Your task to perform on an android device: Search for vegetarian restaurants on Maps Image 0: 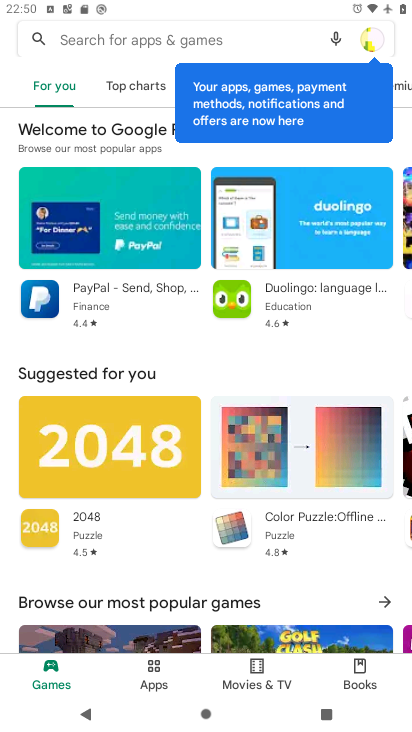
Step 0: press home button
Your task to perform on an android device: Search for vegetarian restaurants on Maps Image 1: 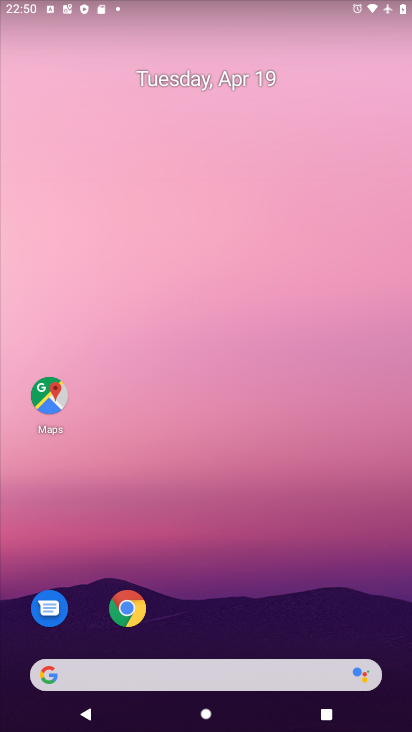
Step 1: click (367, 630)
Your task to perform on an android device: Search for vegetarian restaurants on Maps Image 2: 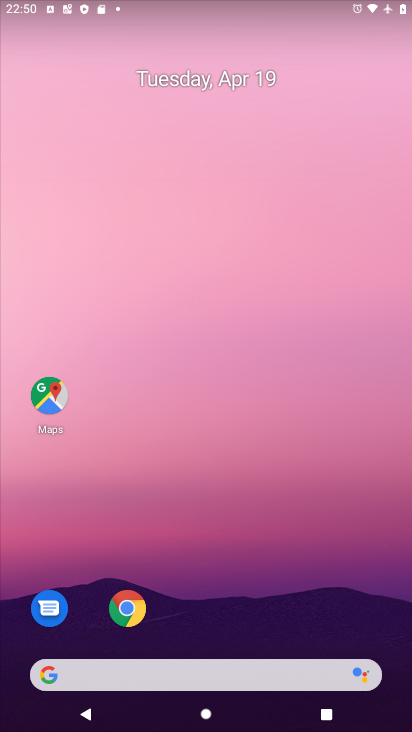
Step 2: click (47, 398)
Your task to perform on an android device: Search for vegetarian restaurants on Maps Image 3: 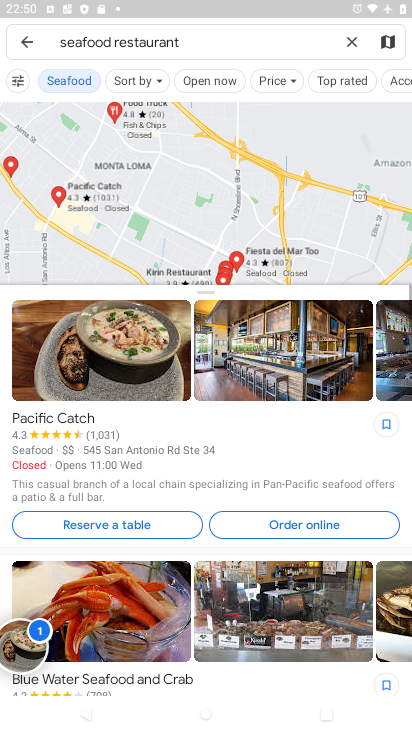
Step 3: click (349, 36)
Your task to perform on an android device: Search for vegetarian restaurants on Maps Image 4: 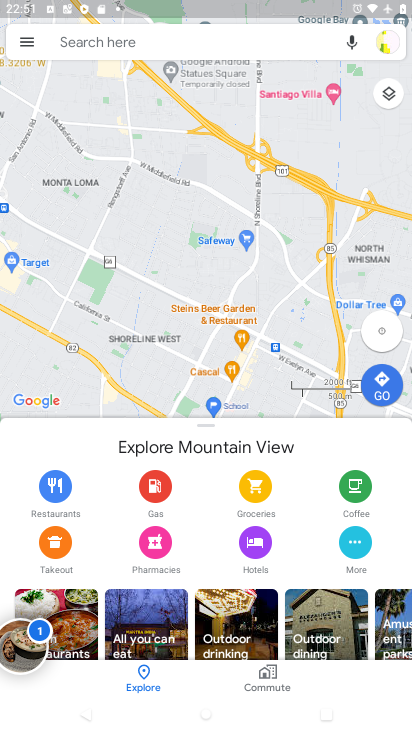
Step 4: click (148, 41)
Your task to perform on an android device: Search for vegetarian restaurants on Maps Image 5: 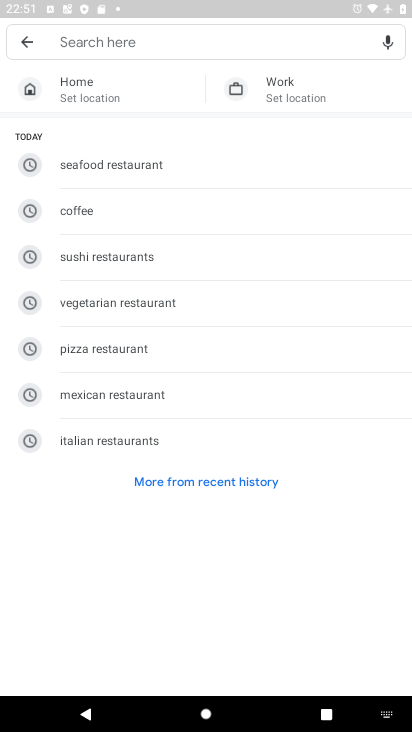
Step 5: type "vegetarian restaurants"
Your task to perform on an android device: Search for vegetarian restaurants on Maps Image 6: 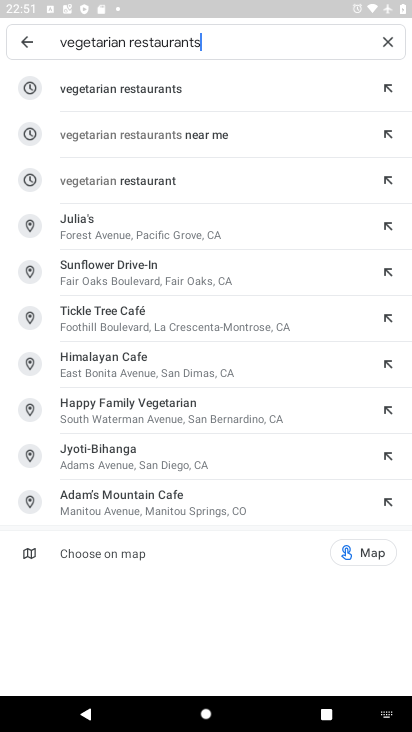
Step 6: click (120, 86)
Your task to perform on an android device: Search for vegetarian restaurants on Maps Image 7: 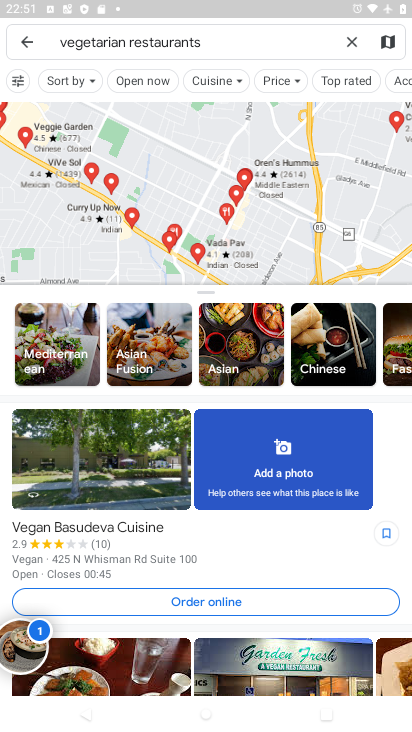
Step 7: task complete